Your task to perform on an android device: Open the calendar and show me this week's events? Image 0: 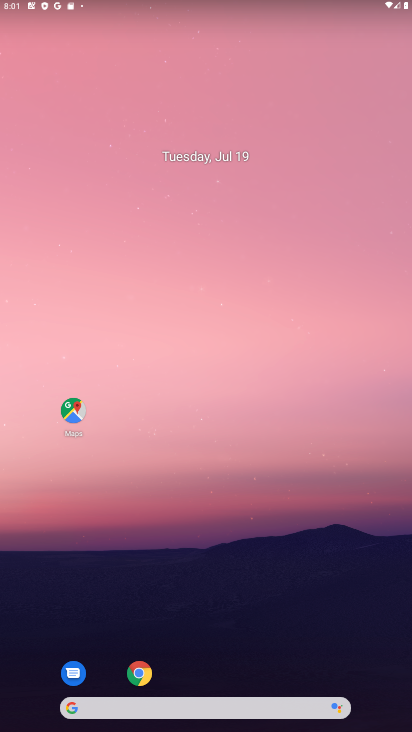
Step 0: drag from (244, 647) to (245, 140)
Your task to perform on an android device: Open the calendar and show me this week's events? Image 1: 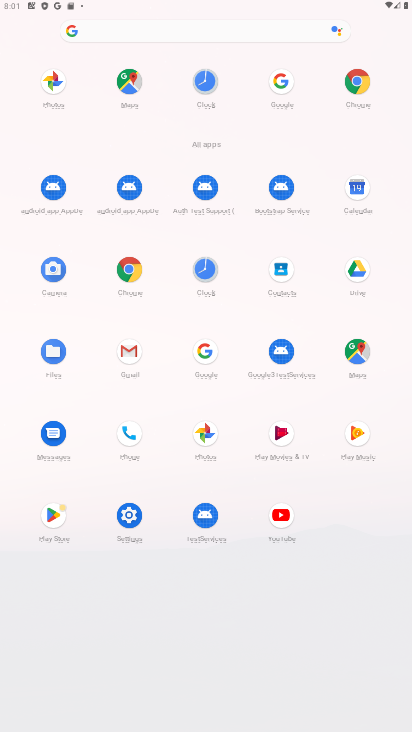
Step 1: click (355, 202)
Your task to perform on an android device: Open the calendar and show me this week's events? Image 2: 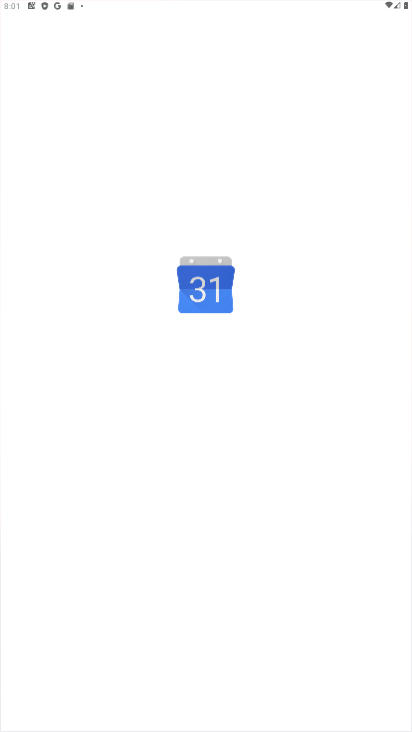
Step 2: task complete